Your task to perform on an android device: Open accessibility settings Image 0: 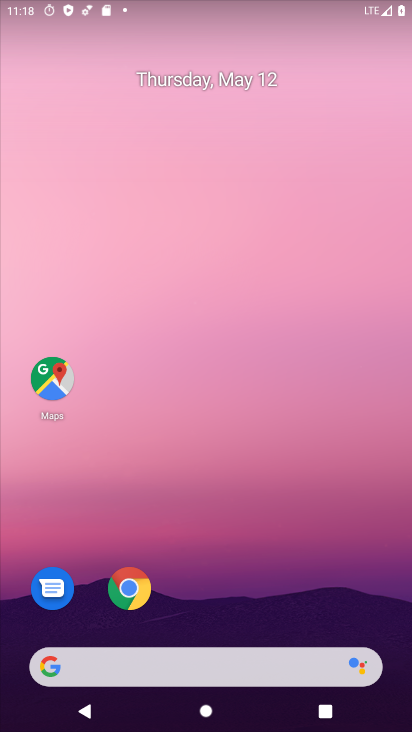
Step 0: drag from (315, 417) to (343, 79)
Your task to perform on an android device: Open accessibility settings Image 1: 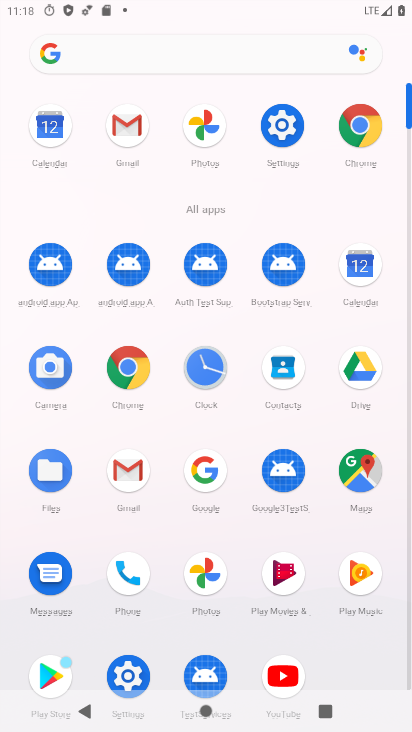
Step 1: click (278, 134)
Your task to perform on an android device: Open accessibility settings Image 2: 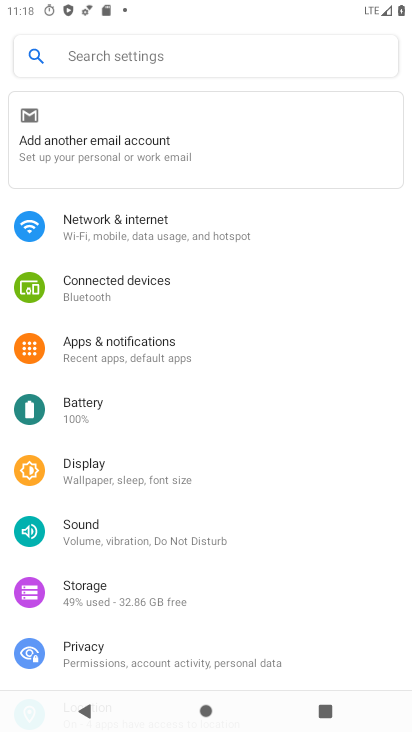
Step 2: drag from (227, 610) to (252, 99)
Your task to perform on an android device: Open accessibility settings Image 3: 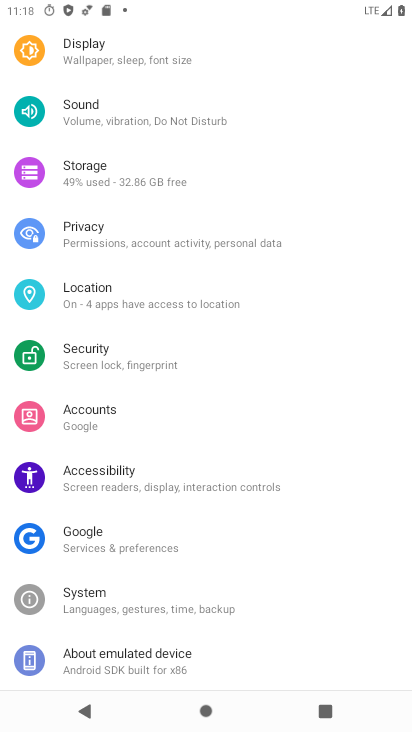
Step 3: drag from (226, 631) to (265, 363)
Your task to perform on an android device: Open accessibility settings Image 4: 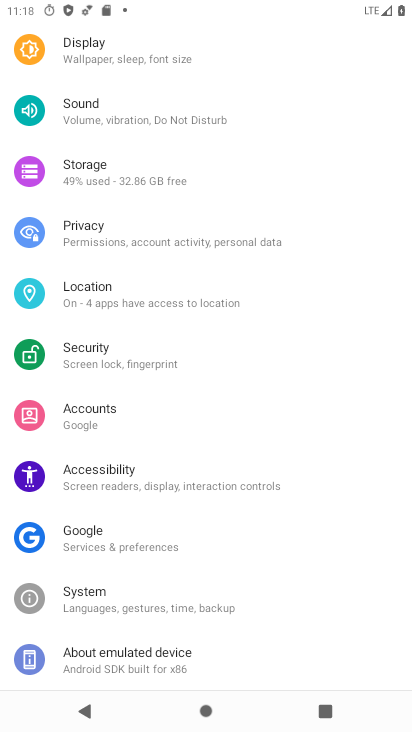
Step 4: click (179, 478)
Your task to perform on an android device: Open accessibility settings Image 5: 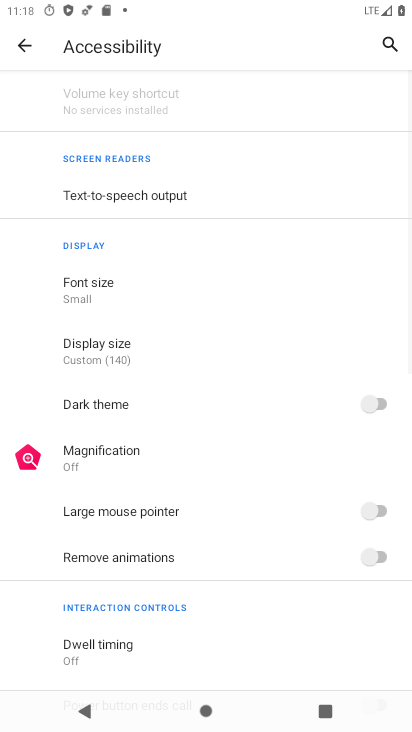
Step 5: task complete